Your task to perform on an android device: change timer sound Image 0: 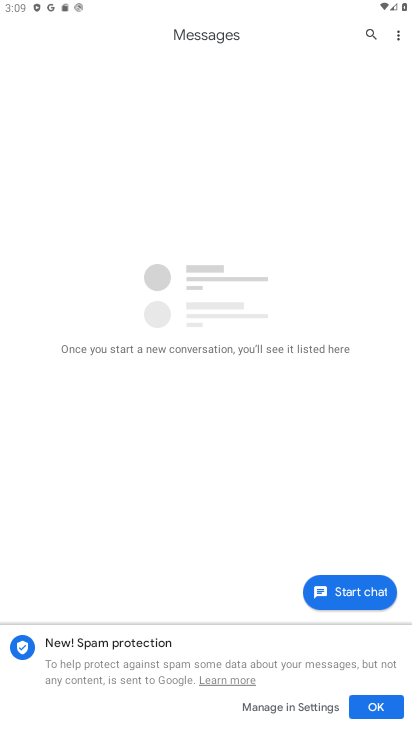
Step 0: press home button
Your task to perform on an android device: change timer sound Image 1: 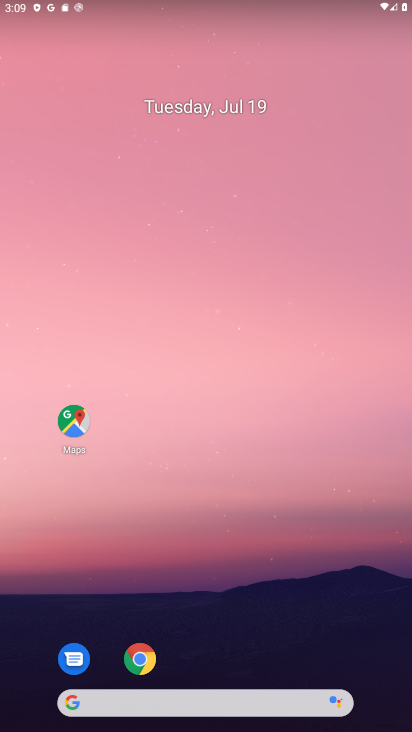
Step 1: drag from (236, 560) to (269, 0)
Your task to perform on an android device: change timer sound Image 2: 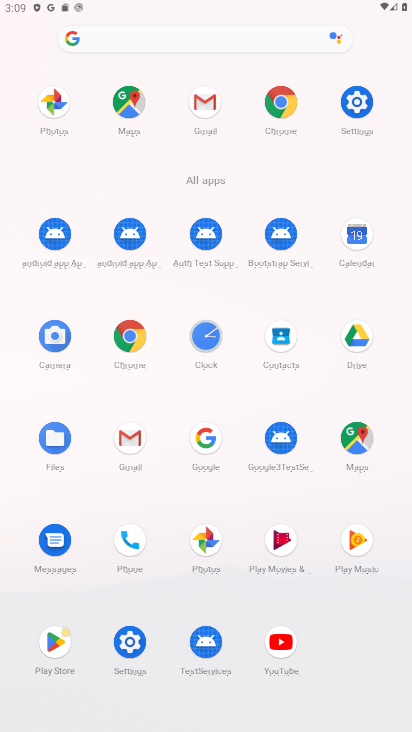
Step 2: click (223, 342)
Your task to perform on an android device: change timer sound Image 3: 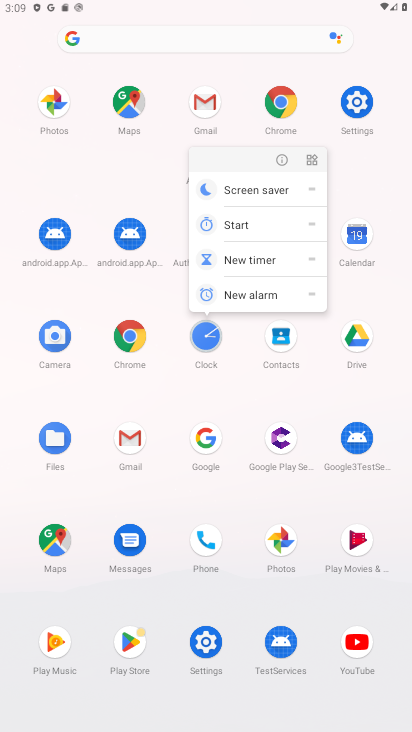
Step 3: click (202, 335)
Your task to perform on an android device: change timer sound Image 4: 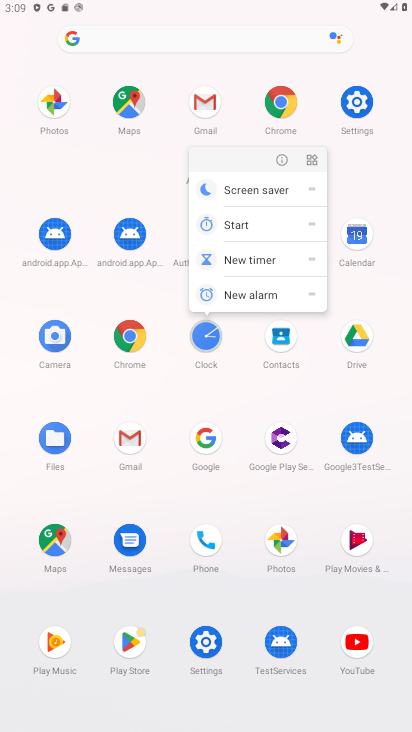
Step 4: click (215, 344)
Your task to perform on an android device: change timer sound Image 5: 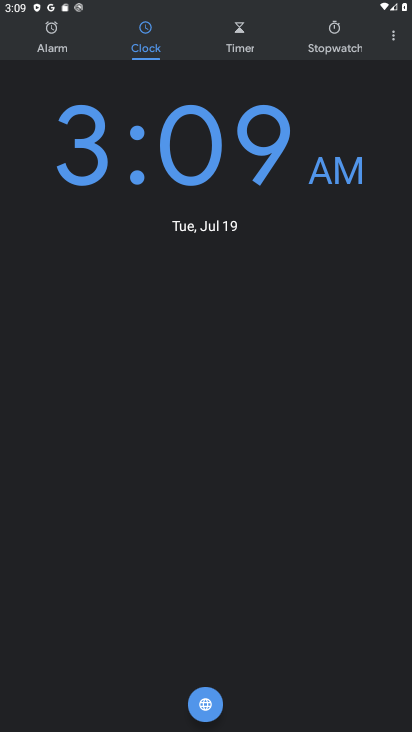
Step 5: click (395, 32)
Your task to perform on an android device: change timer sound Image 6: 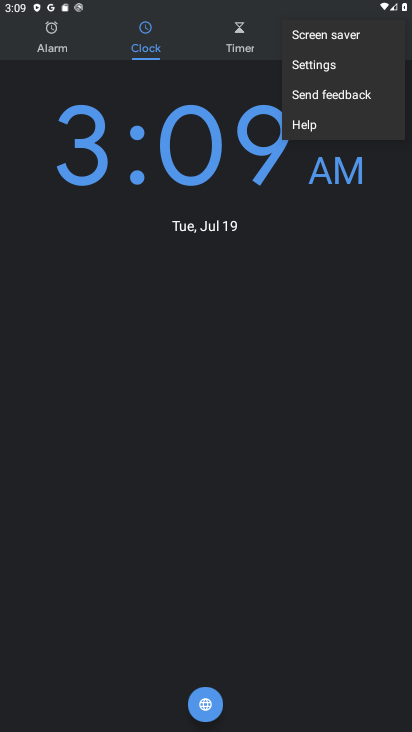
Step 6: click (359, 70)
Your task to perform on an android device: change timer sound Image 7: 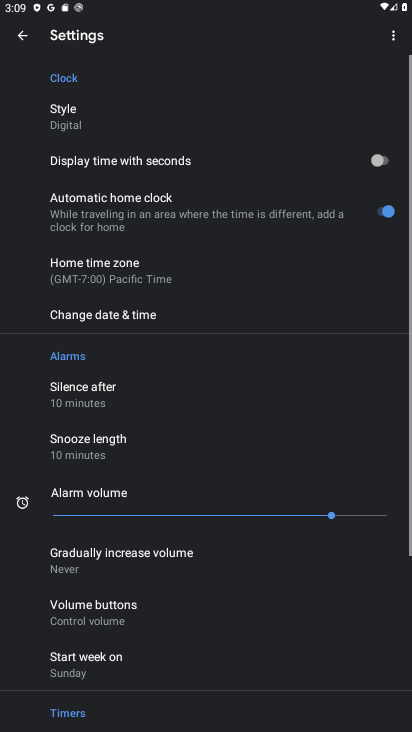
Step 7: drag from (178, 619) to (254, 305)
Your task to perform on an android device: change timer sound Image 8: 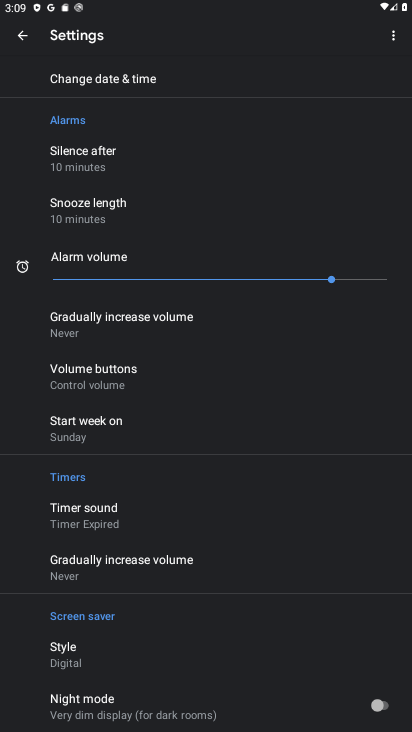
Step 8: click (166, 519)
Your task to perform on an android device: change timer sound Image 9: 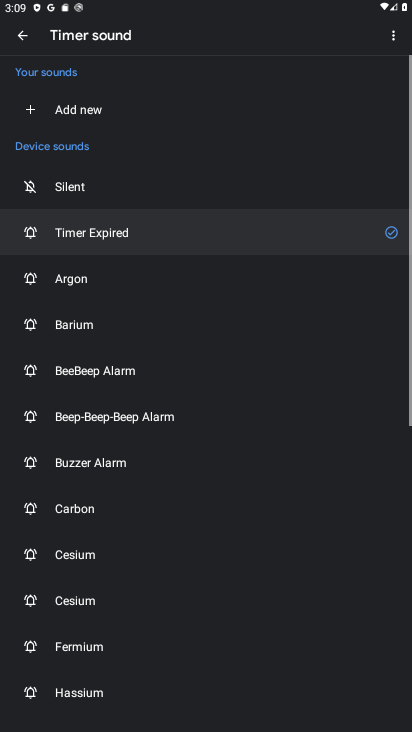
Step 9: click (156, 576)
Your task to perform on an android device: change timer sound Image 10: 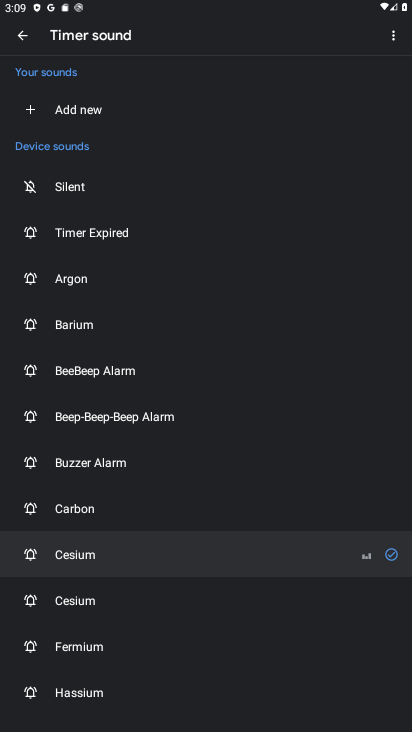
Step 10: task complete